Your task to perform on an android device: snooze an email in the gmail app Image 0: 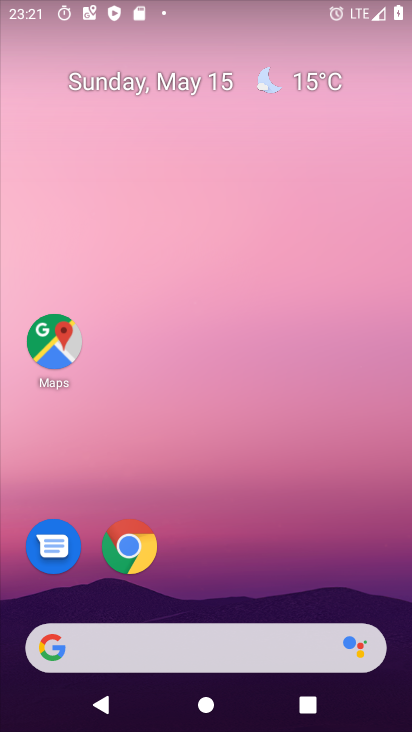
Step 0: drag from (330, 625) to (221, 73)
Your task to perform on an android device: snooze an email in the gmail app Image 1: 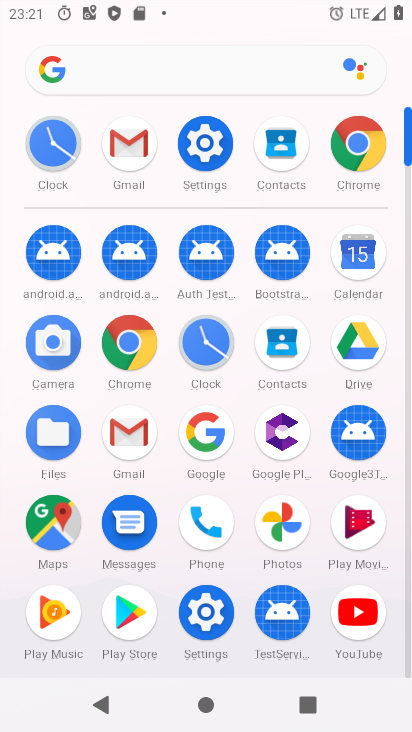
Step 1: click (130, 435)
Your task to perform on an android device: snooze an email in the gmail app Image 2: 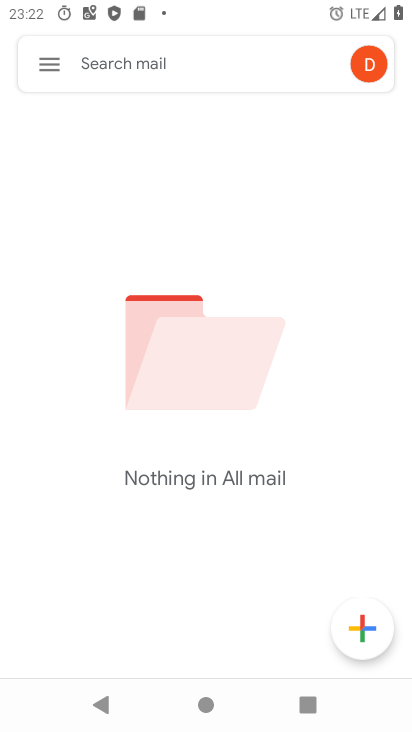
Step 2: click (36, 63)
Your task to perform on an android device: snooze an email in the gmail app Image 3: 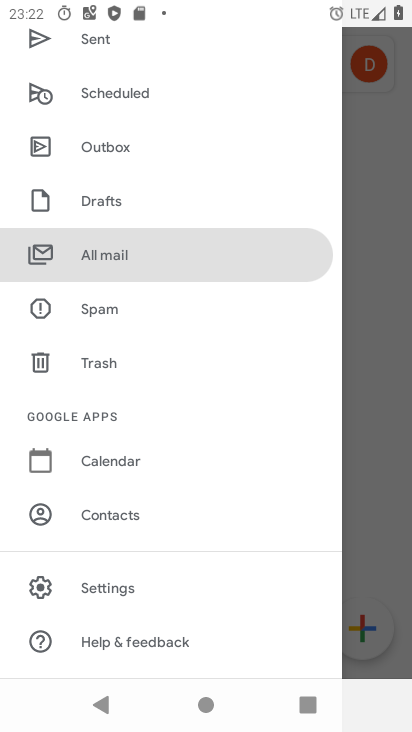
Step 3: click (101, 250)
Your task to perform on an android device: snooze an email in the gmail app Image 4: 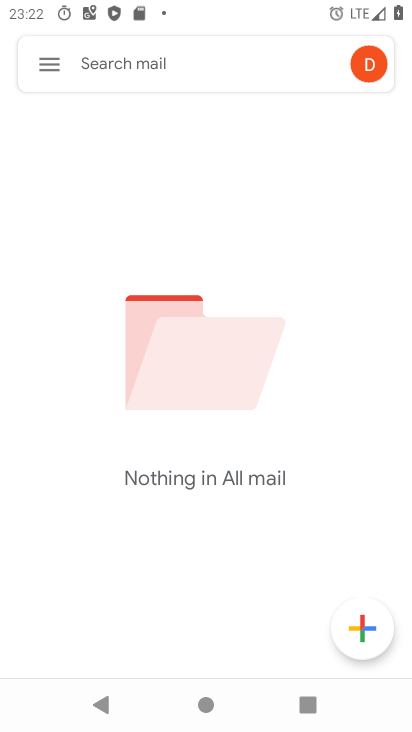
Step 4: task complete